Your task to perform on an android device: add a contact Image 0: 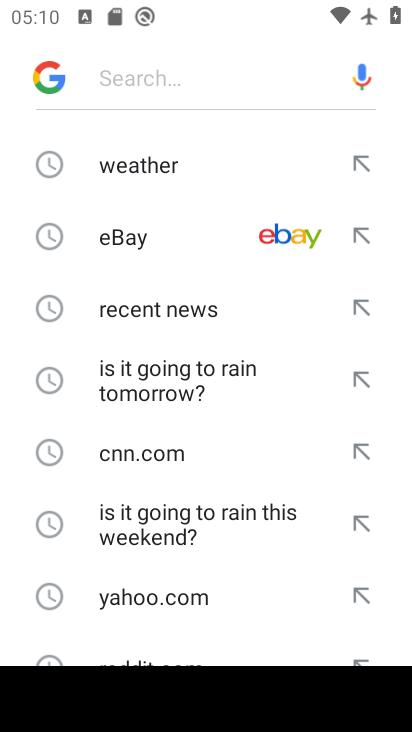
Step 0: press home button
Your task to perform on an android device: add a contact Image 1: 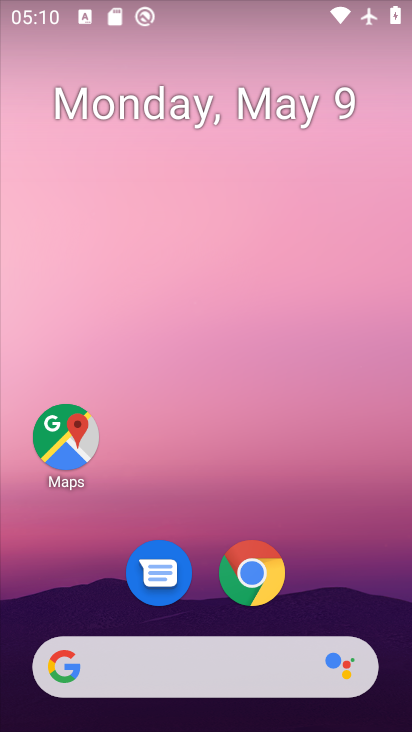
Step 1: drag from (393, 645) to (290, 85)
Your task to perform on an android device: add a contact Image 2: 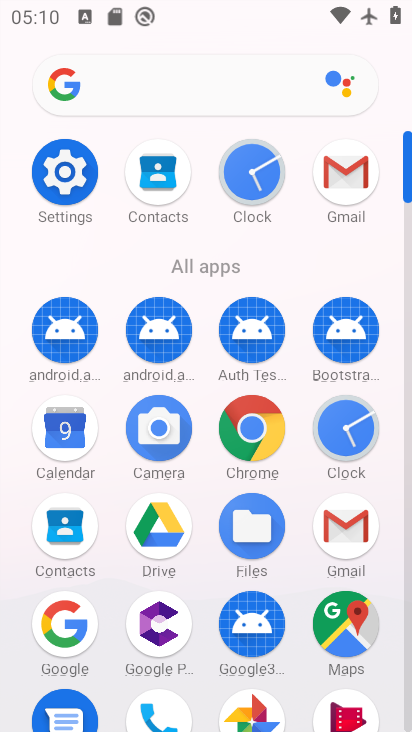
Step 2: click (408, 718)
Your task to perform on an android device: add a contact Image 3: 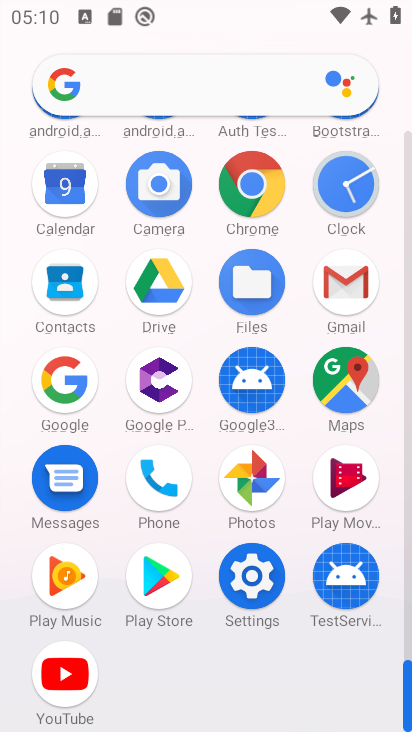
Step 3: click (61, 284)
Your task to perform on an android device: add a contact Image 4: 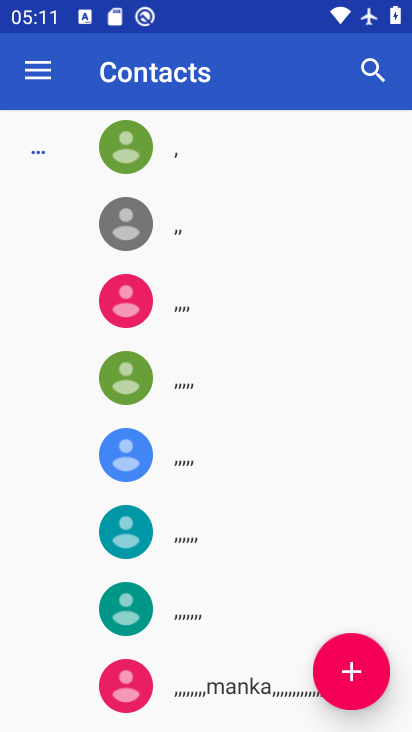
Step 4: click (356, 672)
Your task to perform on an android device: add a contact Image 5: 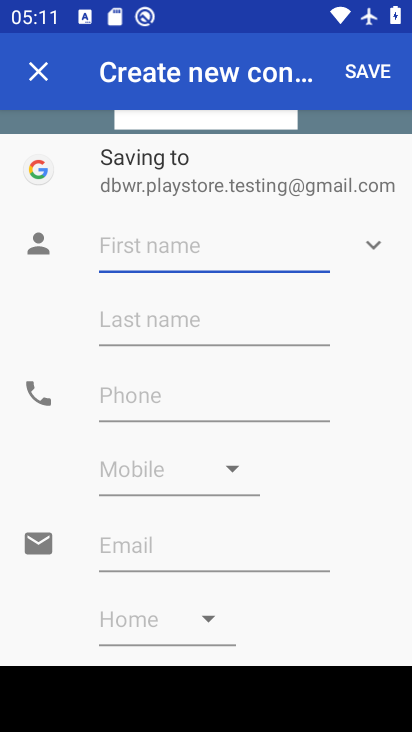
Step 5: type "hfjteewsg"
Your task to perform on an android device: add a contact Image 6: 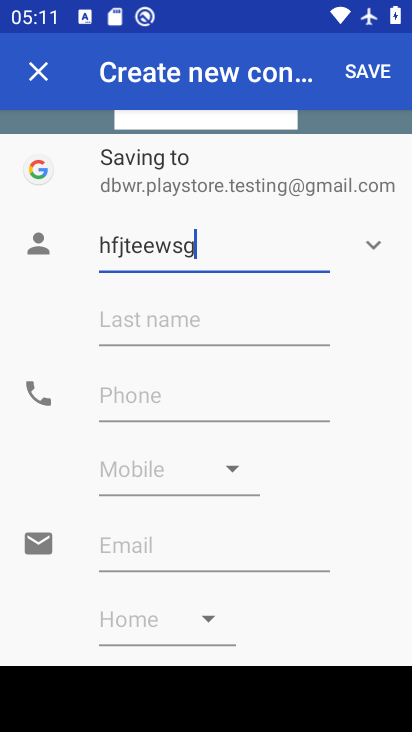
Step 6: click (117, 399)
Your task to perform on an android device: add a contact Image 7: 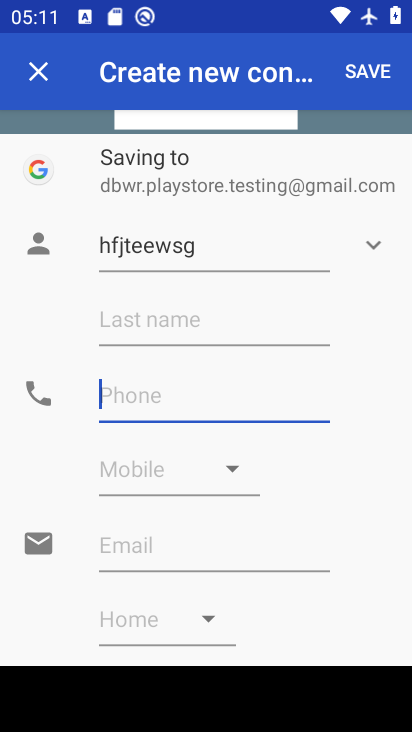
Step 7: type "98877564342"
Your task to perform on an android device: add a contact Image 8: 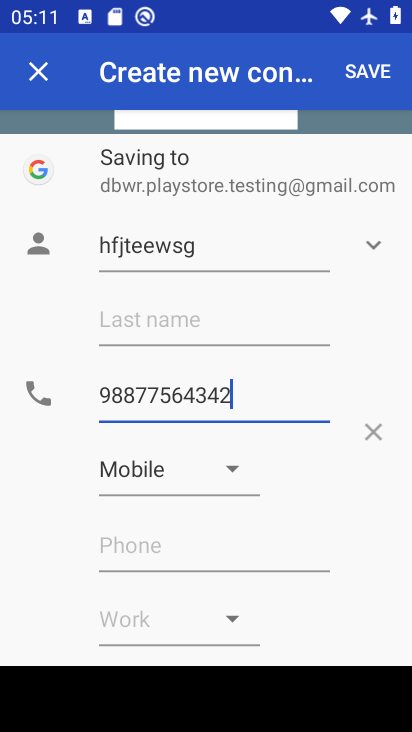
Step 8: click (229, 464)
Your task to perform on an android device: add a contact Image 9: 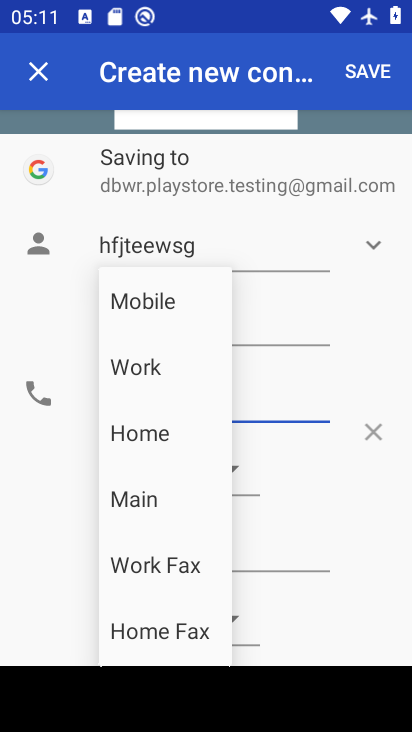
Step 9: click (155, 366)
Your task to perform on an android device: add a contact Image 10: 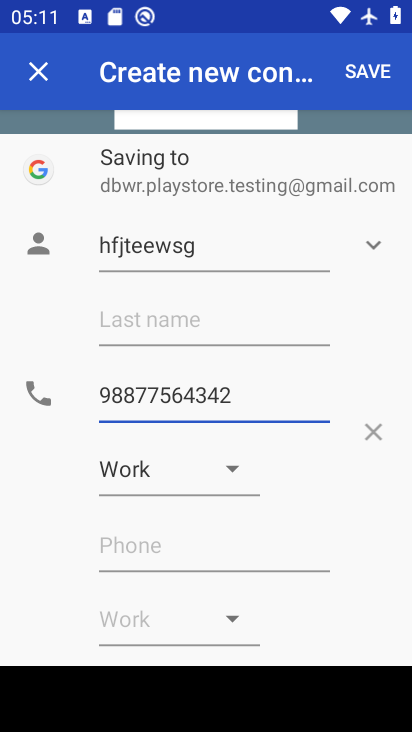
Step 10: click (372, 76)
Your task to perform on an android device: add a contact Image 11: 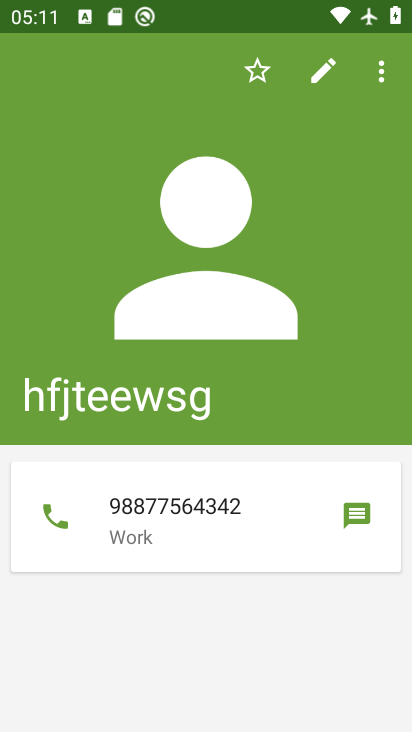
Step 11: task complete